Your task to perform on an android device: What's on my calendar today? Image 0: 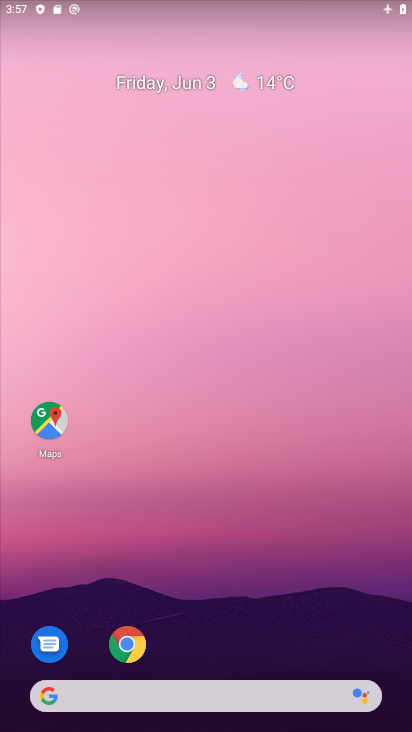
Step 0: click (171, 89)
Your task to perform on an android device: What's on my calendar today? Image 1: 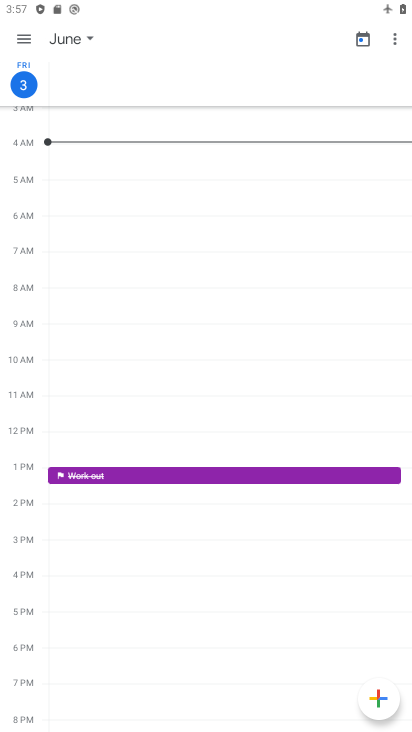
Step 1: click (70, 29)
Your task to perform on an android device: What's on my calendar today? Image 2: 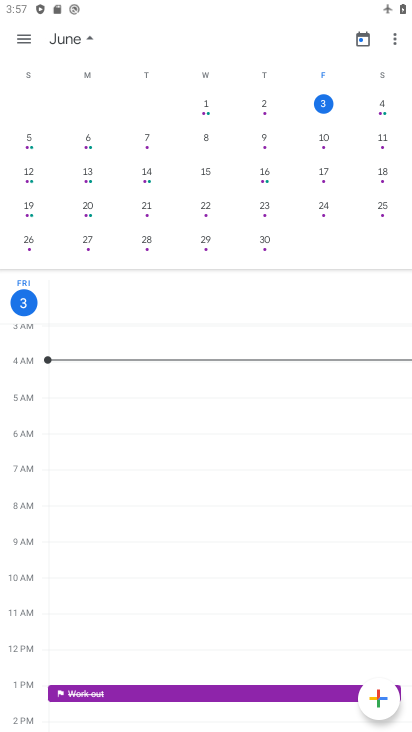
Step 2: task complete